Your task to perform on an android device: toggle location history Image 0: 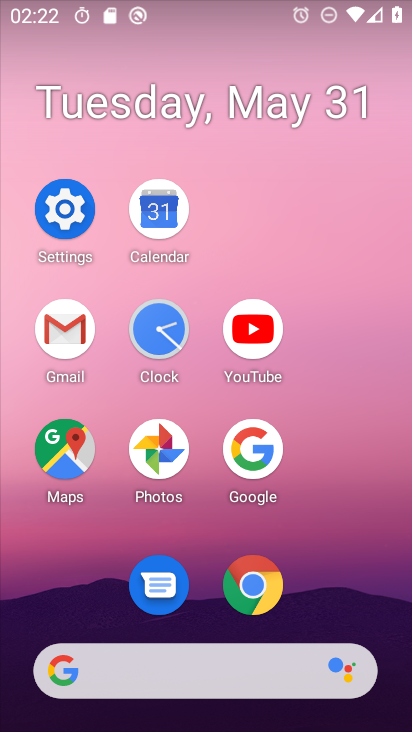
Step 0: click (44, 231)
Your task to perform on an android device: toggle location history Image 1: 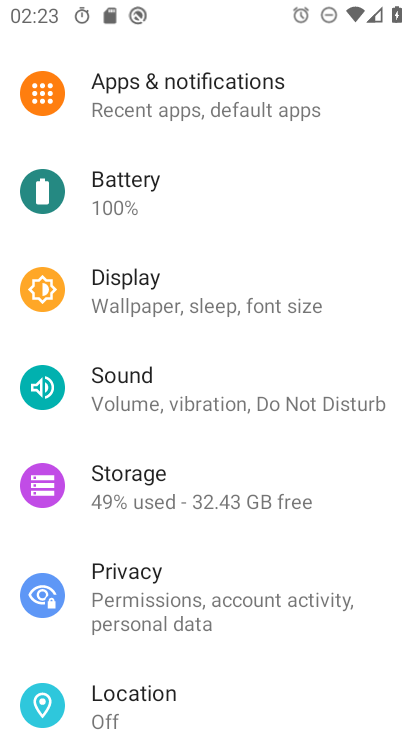
Step 1: click (159, 694)
Your task to perform on an android device: toggle location history Image 2: 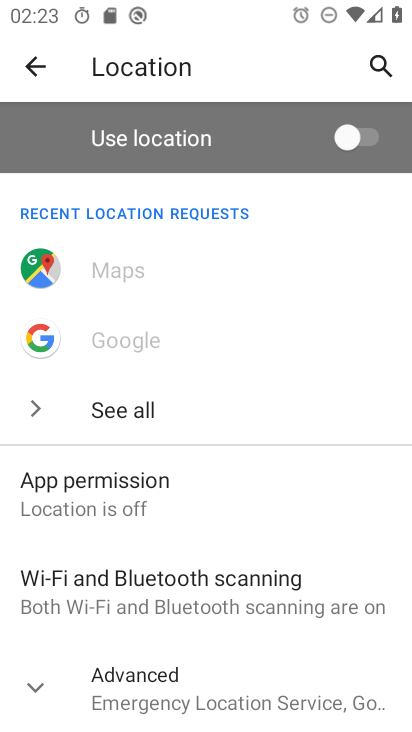
Step 2: click (181, 672)
Your task to perform on an android device: toggle location history Image 3: 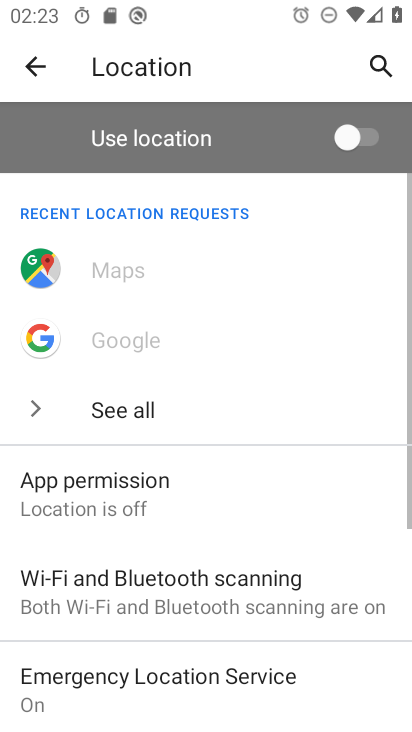
Step 3: drag from (196, 654) to (220, 197)
Your task to perform on an android device: toggle location history Image 4: 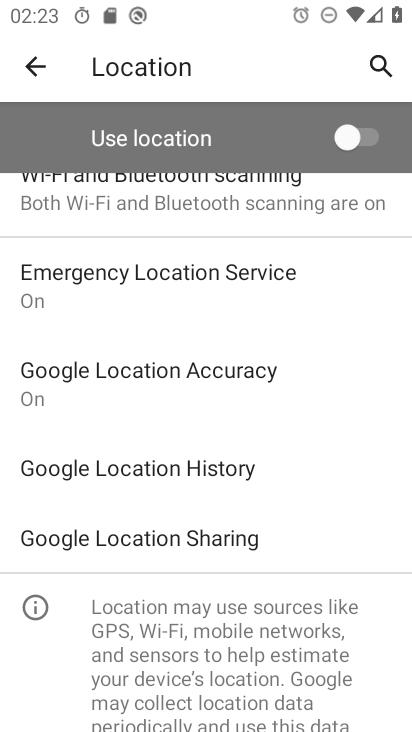
Step 4: click (224, 462)
Your task to perform on an android device: toggle location history Image 5: 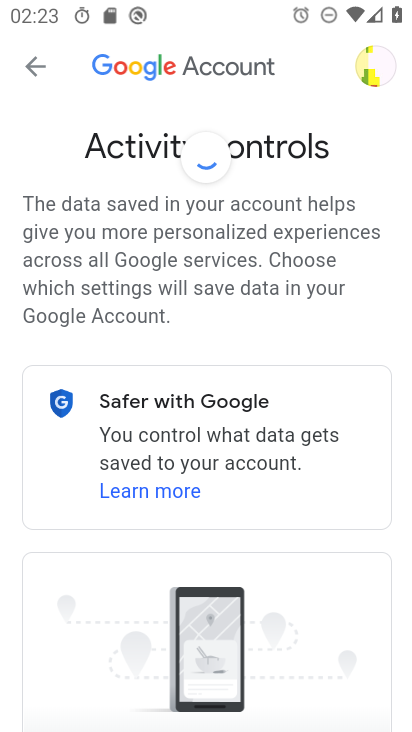
Step 5: drag from (257, 588) to (236, 156)
Your task to perform on an android device: toggle location history Image 6: 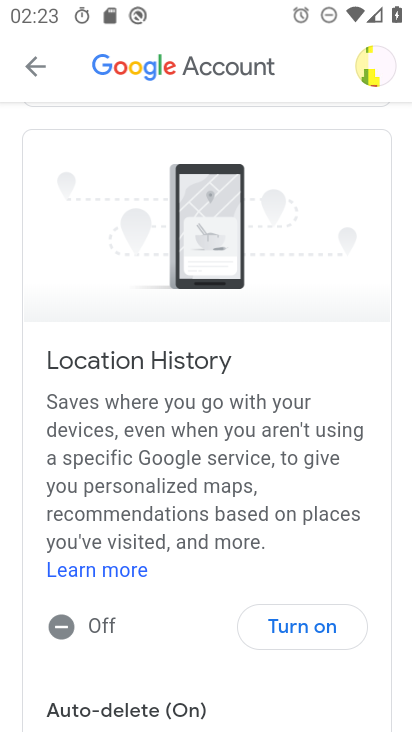
Step 6: click (310, 626)
Your task to perform on an android device: toggle location history Image 7: 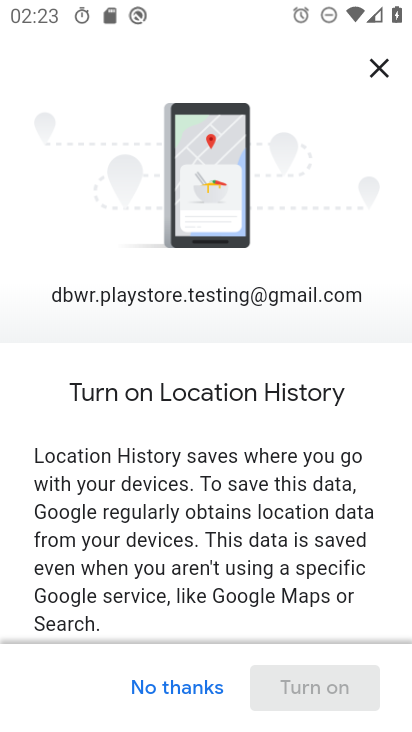
Step 7: drag from (310, 626) to (281, 200)
Your task to perform on an android device: toggle location history Image 8: 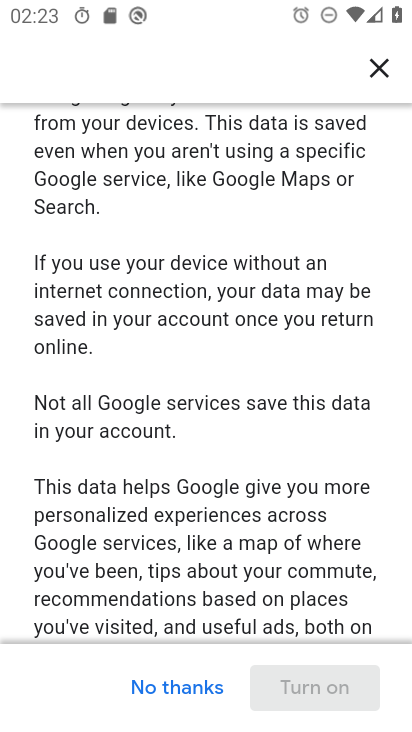
Step 8: drag from (350, 612) to (301, 204)
Your task to perform on an android device: toggle location history Image 9: 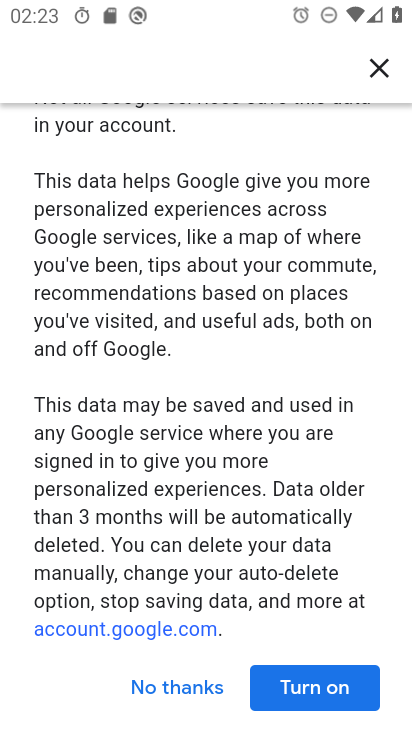
Step 9: click (323, 714)
Your task to perform on an android device: toggle location history Image 10: 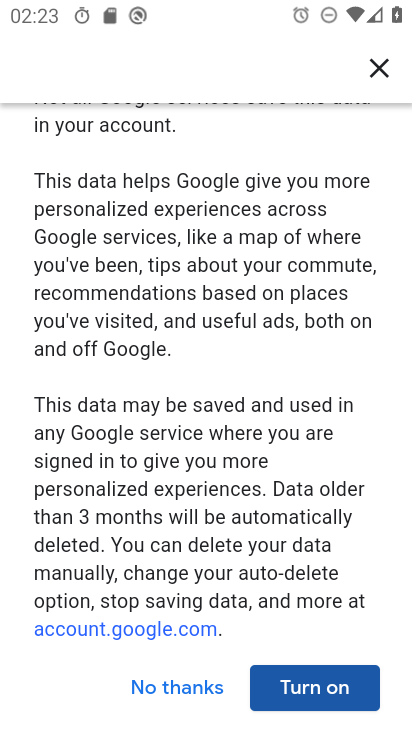
Step 10: click (328, 697)
Your task to perform on an android device: toggle location history Image 11: 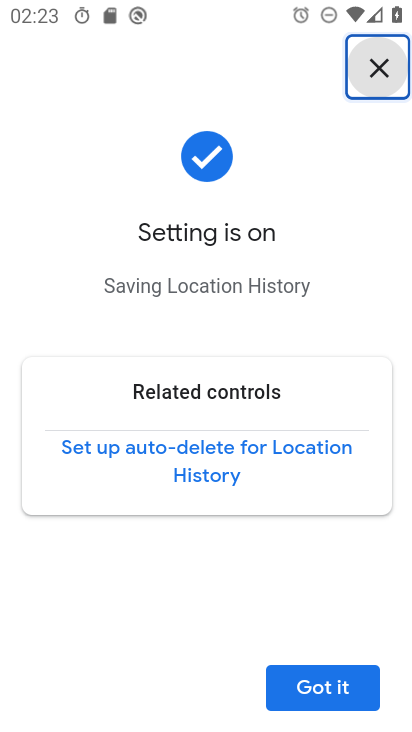
Step 11: click (328, 697)
Your task to perform on an android device: toggle location history Image 12: 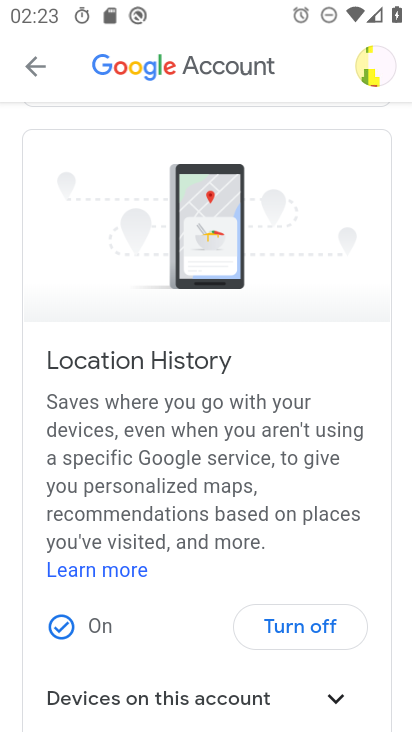
Step 12: task complete